Your task to perform on an android device: Search for the best rated headphones on Amazon Image 0: 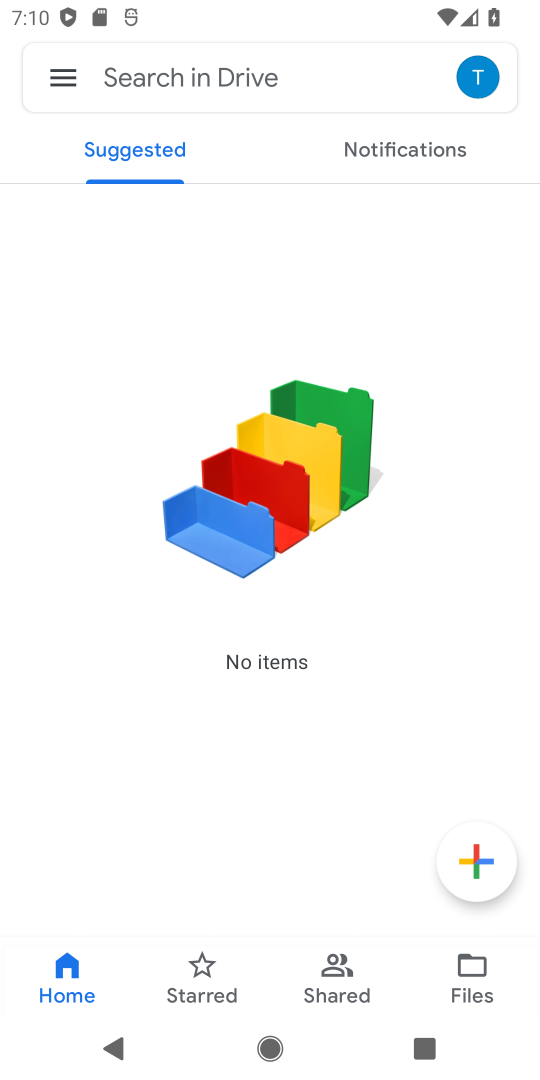
Step 0: press home button
Your task to perform on an android device: Search for the best rated headphones on Amazon Image 1: 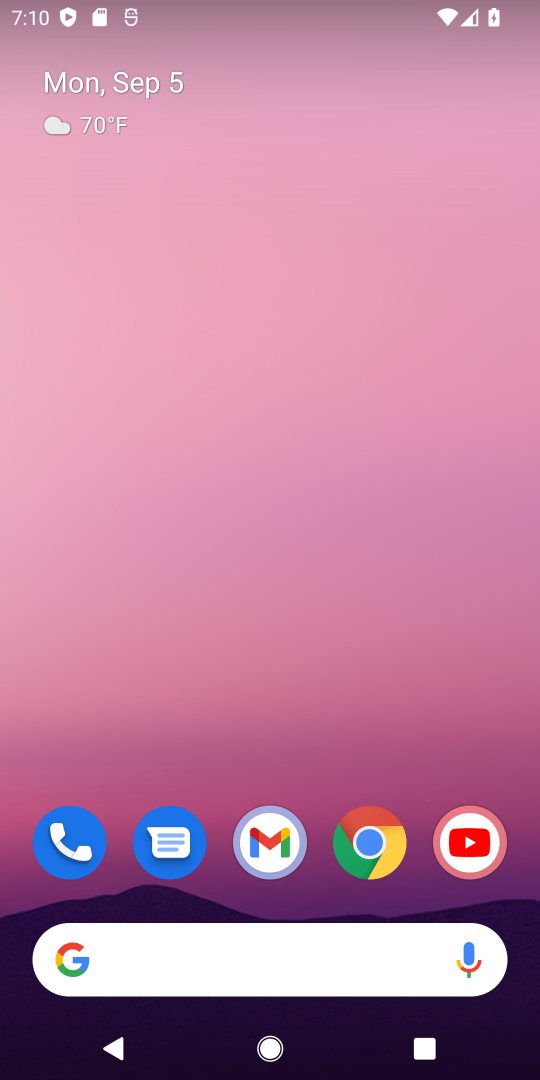
Step 1: click (370, 846)
Your task to perform on an android device: Search for the best rated headphones on Amazon Image 2: 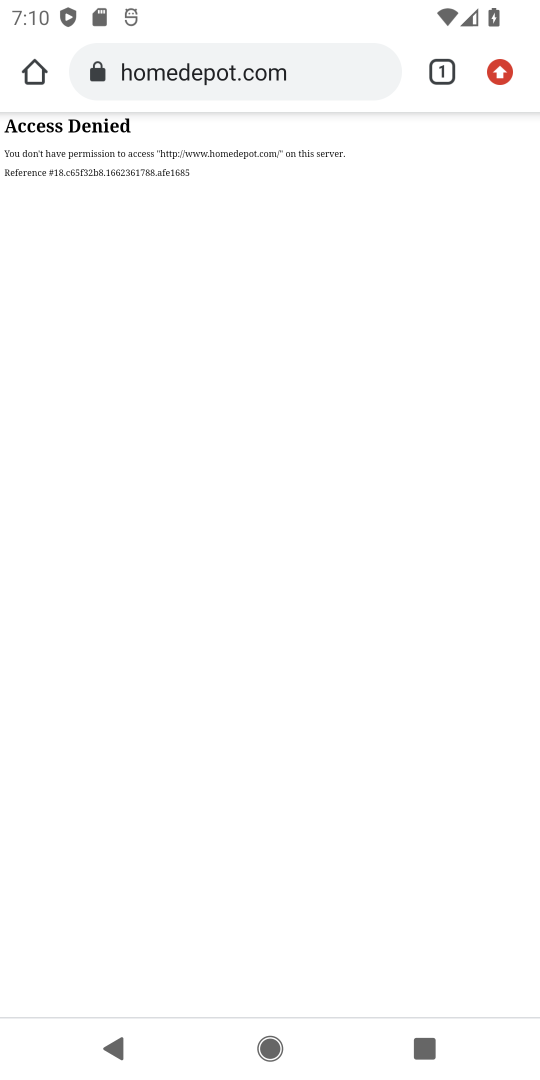
Step 2: click (244, 59)
Your task to perform on an android device: Search for the best rated headphones on Amazon Image 3: 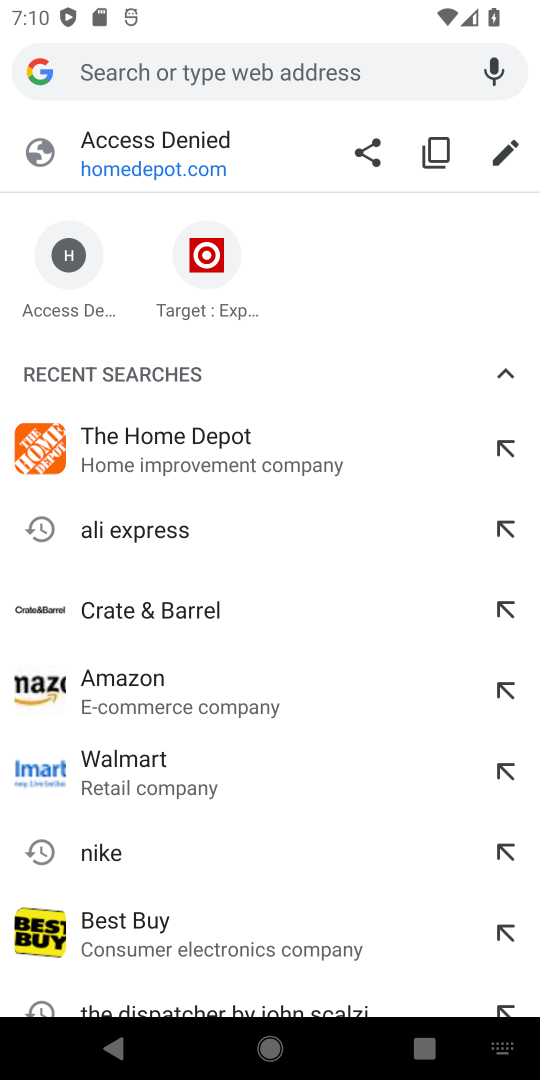
Step 3: type "amazon"
Your task to perform on an android device: Search for the best rated headphones on Amazon Image 4: 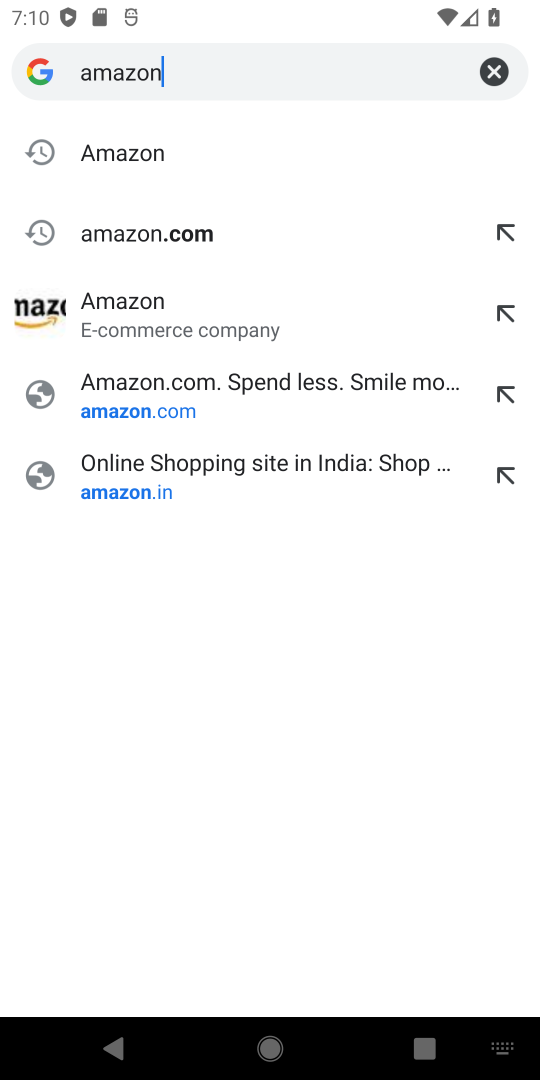
Step 4: click (145, 156)
Your task to perform on an android device: Search for the best rated headphones on Amazon Image 5: 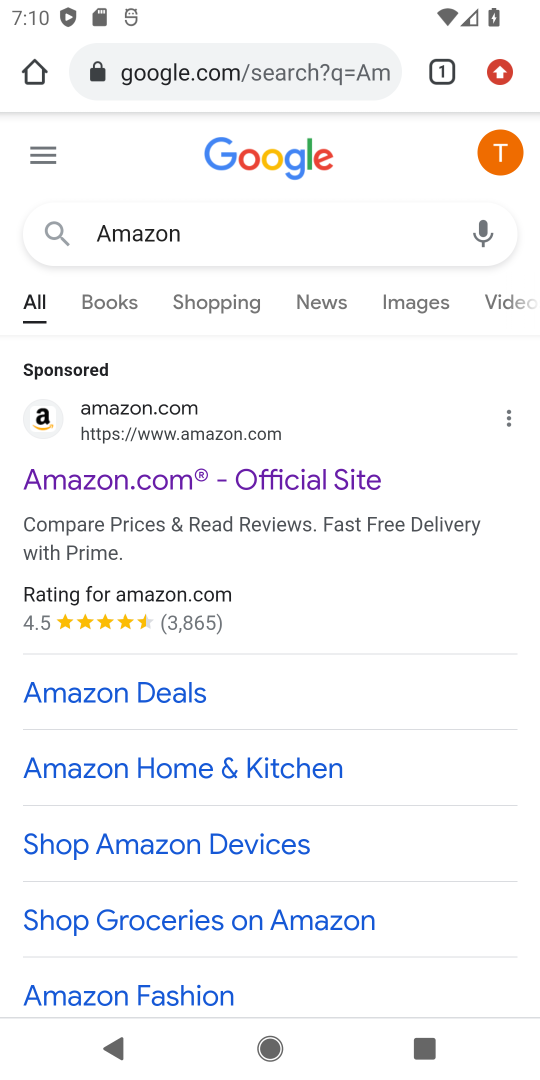
Step 5: click (128, 437)
Your task to perform on an android device: Search for the best rated headphones on Amazon Image 6: 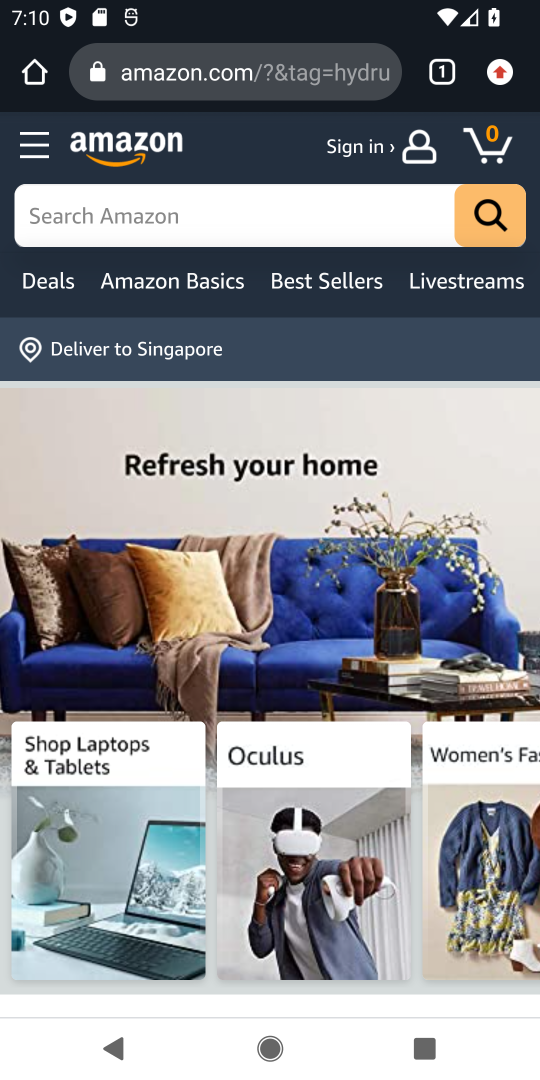
Step 6: click (236, 208)
Your task to perform on an android device: Search for the best rated headphones on Amazon Image 7: 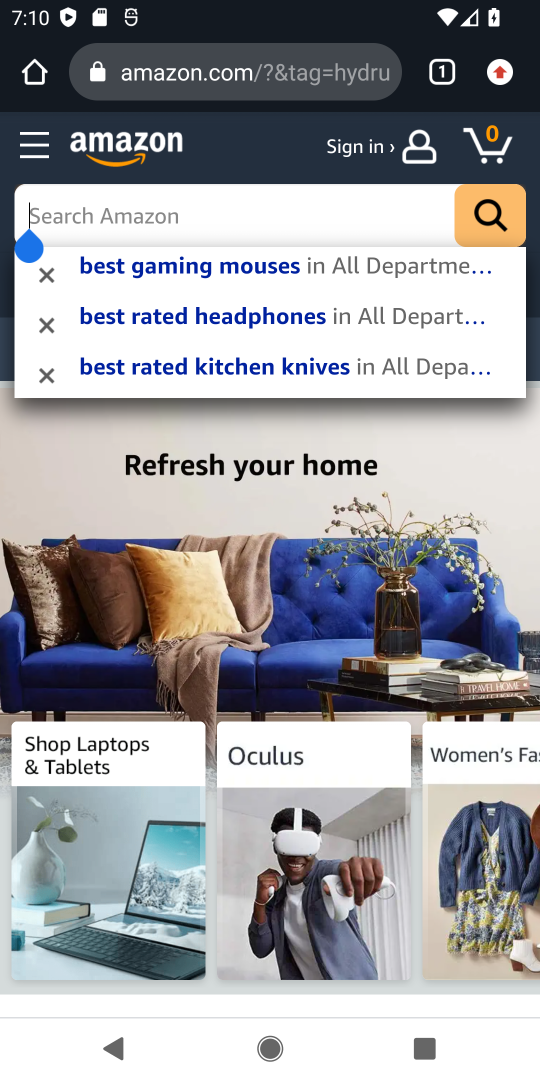
Step 7: click (225, 223)
Your task to perform on an android device: Search for the best rated headphones on Amazon Image 8: 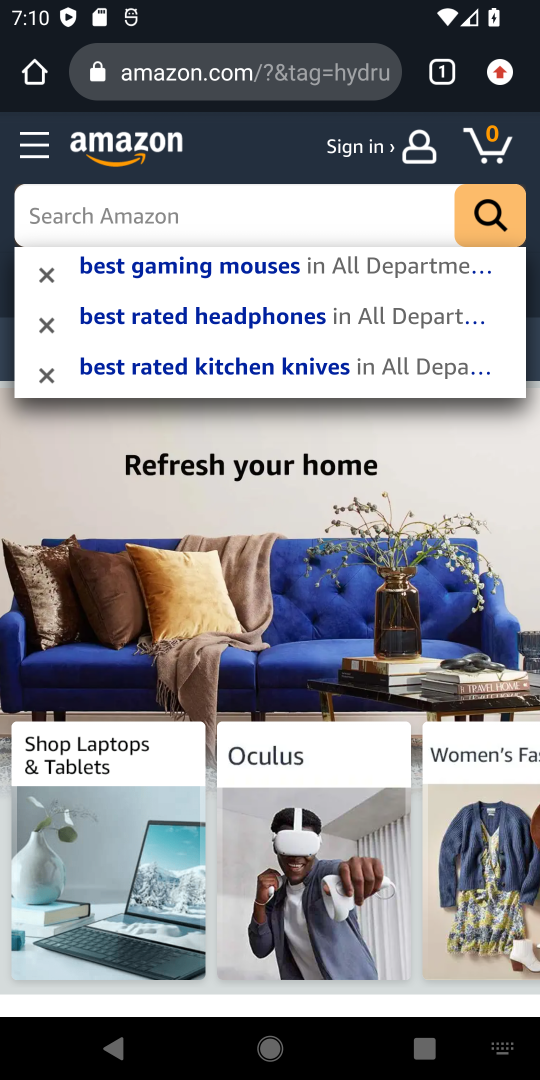
Step 8: type "best rated headphones"
Your task to perform on an android device: Search for the best rated headphones on Amazon Image 9: 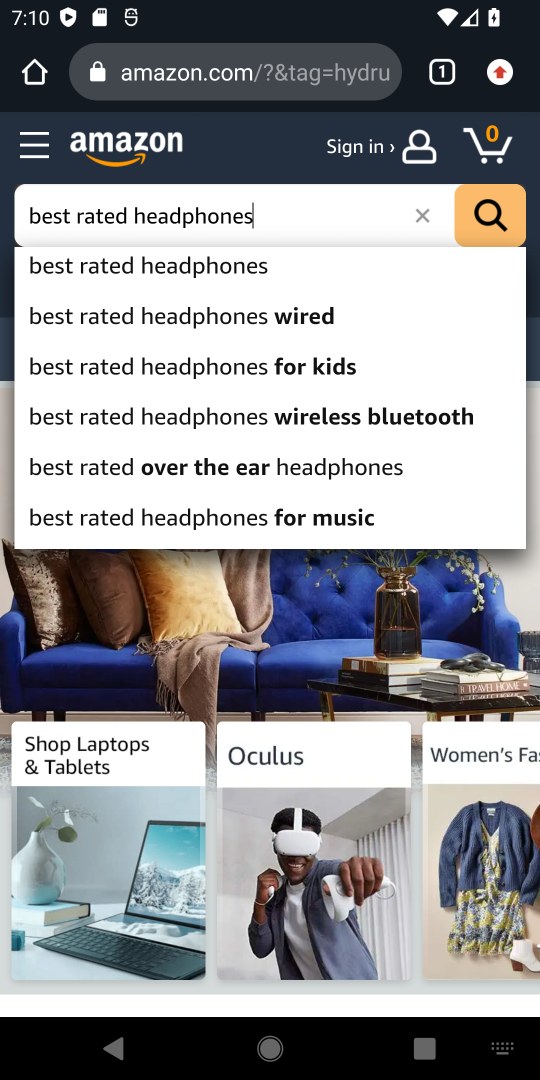
Step 9: click (218, 273)
Your task to perform on an android device: Search for the best rated headphones on Amazon Image 10: 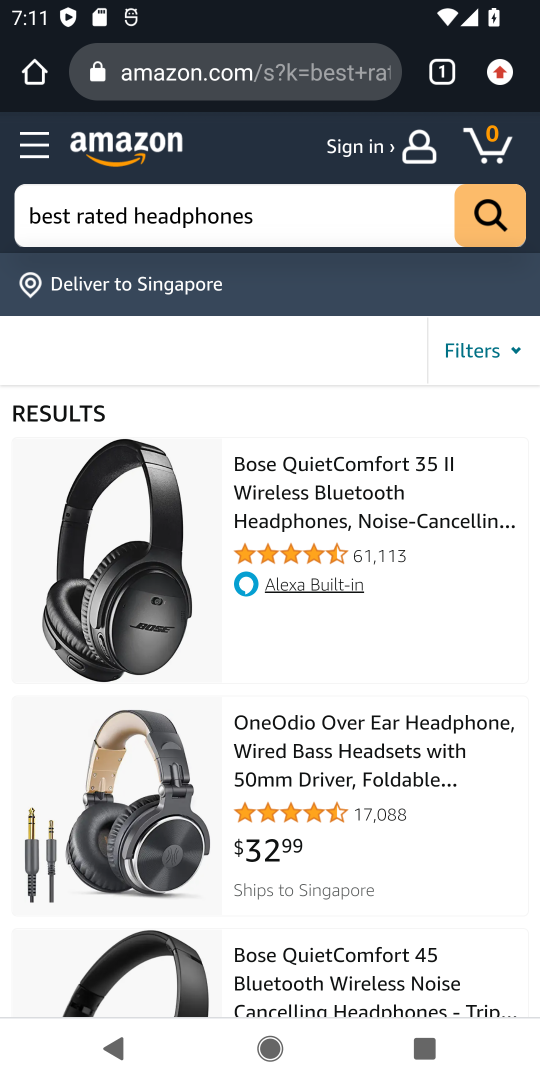
Step 10: task complete